Your task to perform on an android device: visit the assistant section in the google photos Image 0: 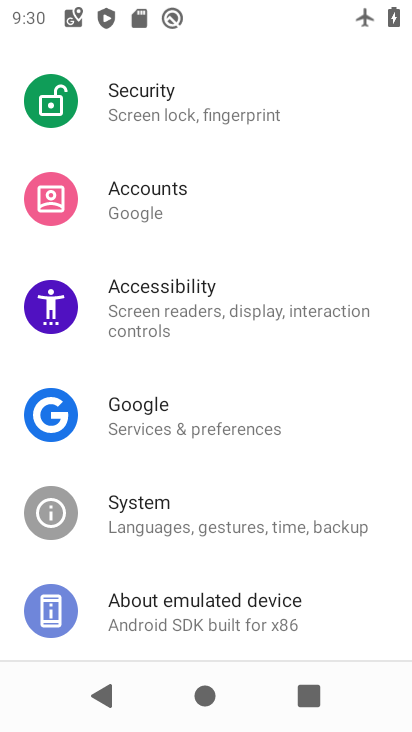
Step 0: press home button
Your task to perform on an android device: visit the assistant section in the google photos Image 1: 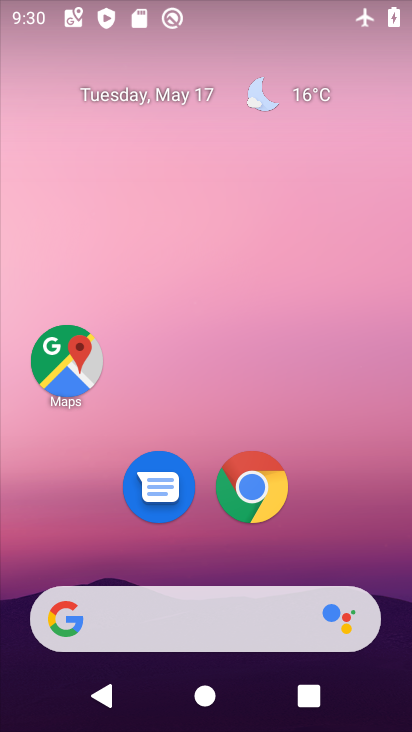
Step 1: drag from (295, 579) to (326, 6)
Your task to perform on an android device: visit the assistant section in the google photos Image 2: 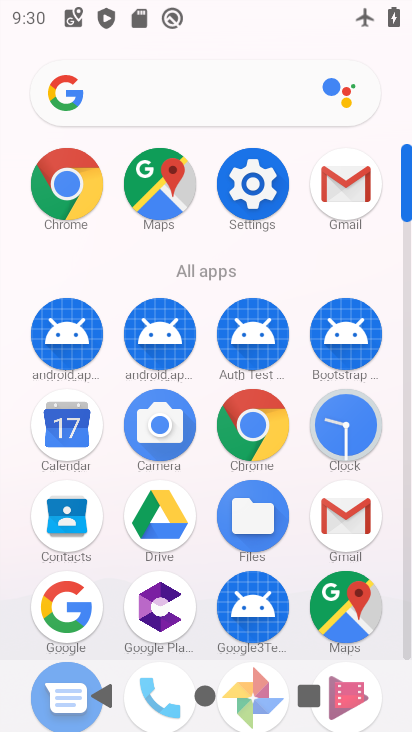
Step 2: drag from (197, 546) to (286, 33)
Your task to perform on an android device: visit the assistant section in the google photos Image 3: 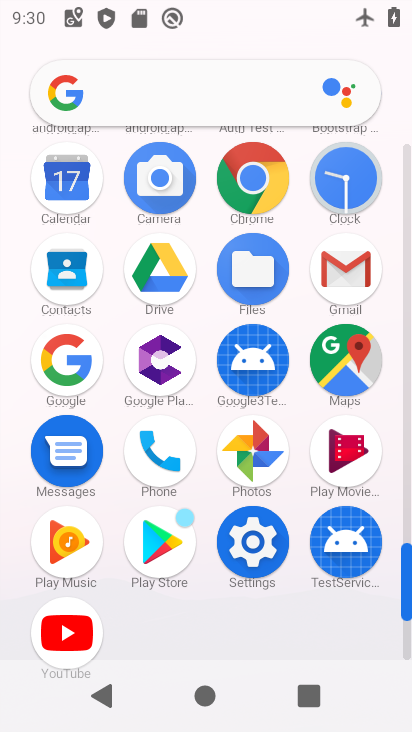
Step 3: click (260, 465)
Your task to perform on an android device: visit the assistant section in the google photos Image 4: 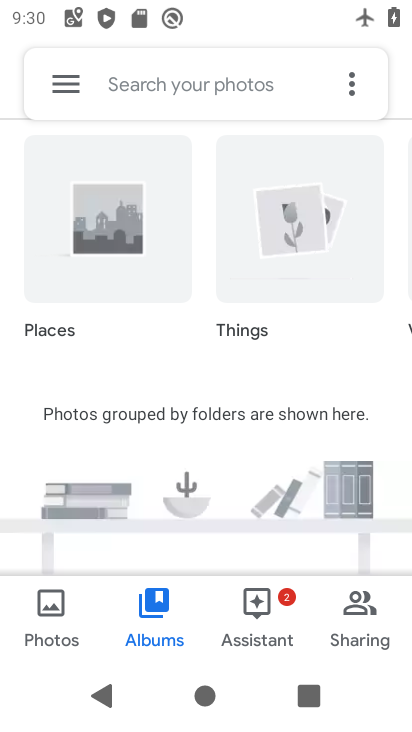
Step 4: click (250, 610)
Your task to perform on an android device: visit the assistant section in the google photos Image 5: 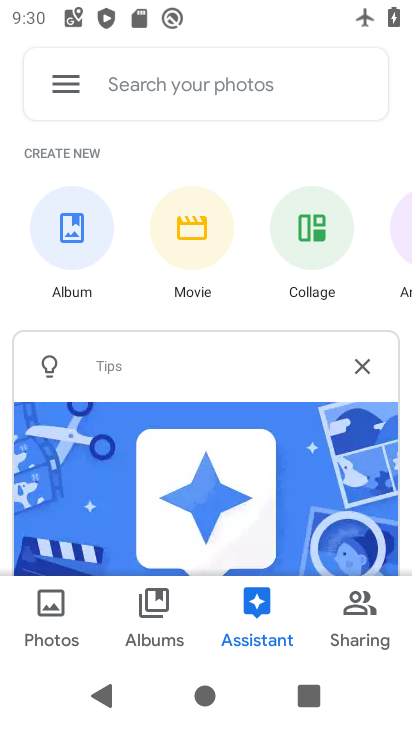
Step 5: task complete